Your task to perform on an android device: turn off airplane mode Image 0: 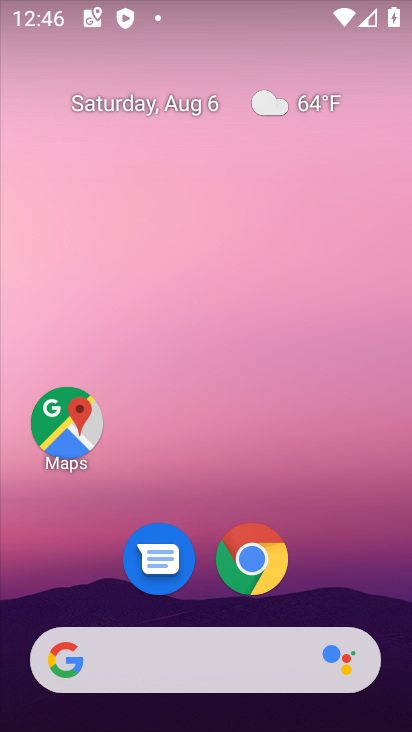
Step 0: drag from (320, 18) to (273, 726)
Your task to perform on an android device: turn off airplane mode Image 1: 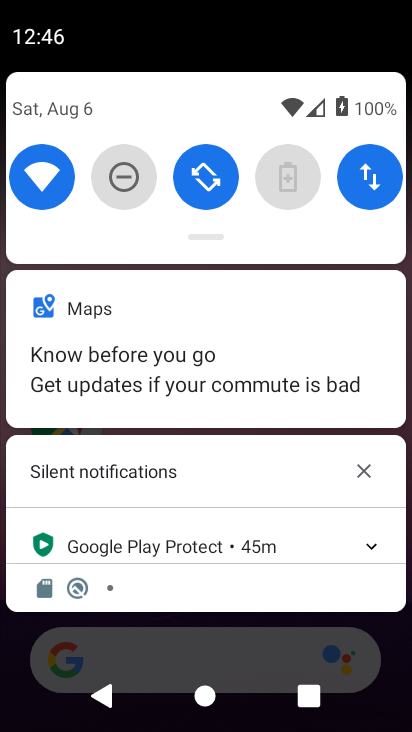
Step 1: drag from (224, 632) to (236, 197)
Your task to perform on an android device: turn off airplane mode Image 2: 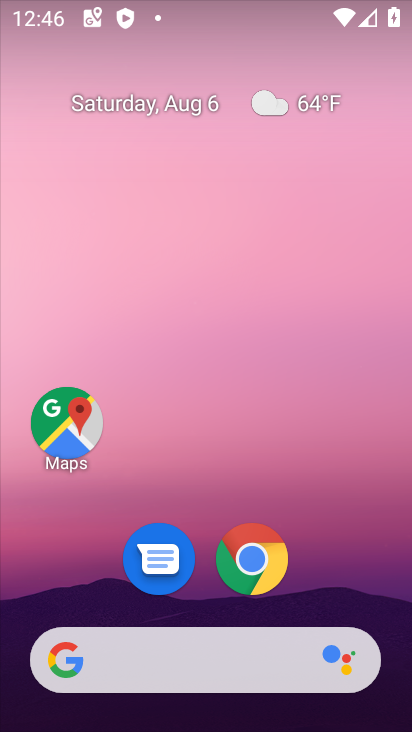
Step 2: drag from (33, 704) to (116, 397)
Your task to perform on an android device: turn off airplane mode Image 3: 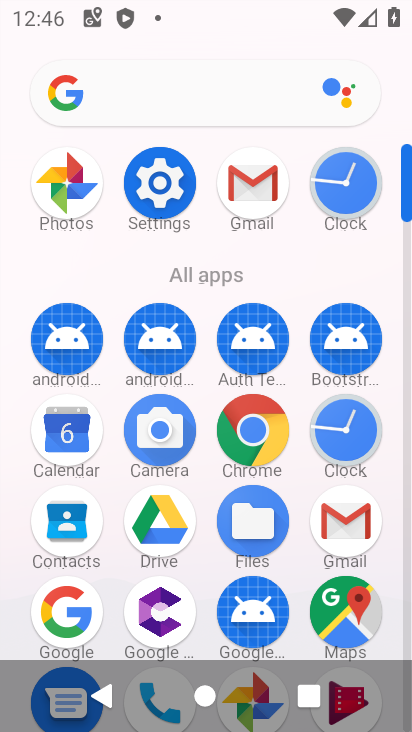
Step 3: click (175, 168)
Your task to perform on an android device: turn off airplane mode Image 4: 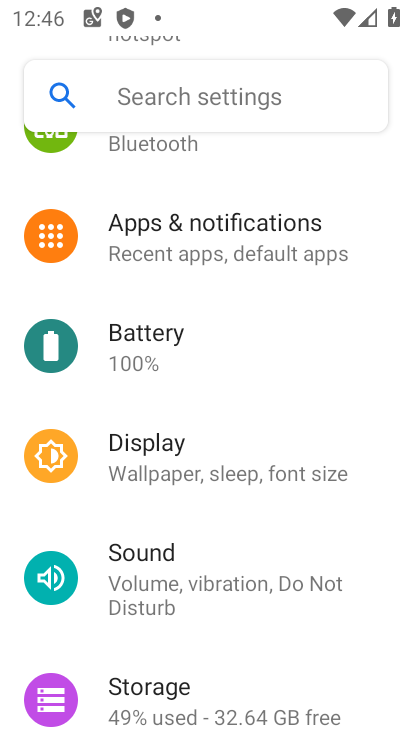
Step 4: drag from (298, 222) to (296, 723)
Your task to perform on an android device: turn off airplane mode Image 5: 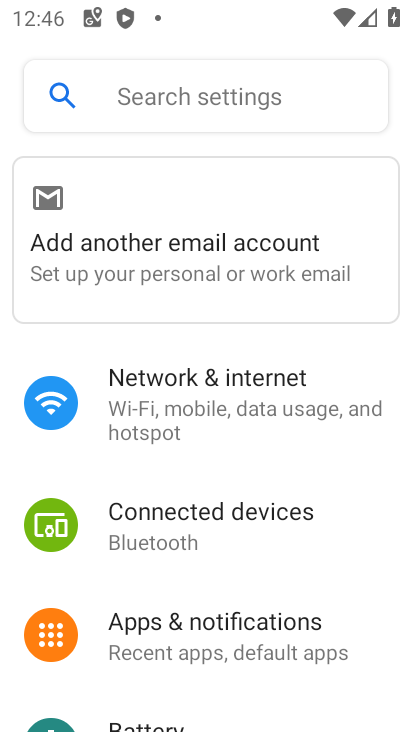
Step 5: click (329, 408)
Your task to perform on an android device: turn off airplane mode Image 6: 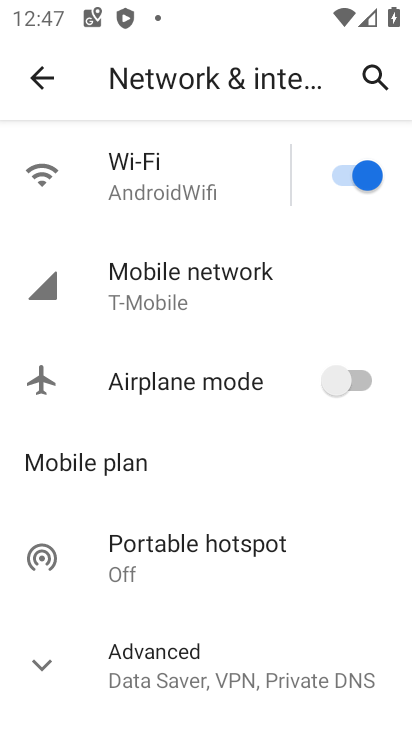
Step 6: task complete